Your task to perform on an android device: toggle wifi Image 0: 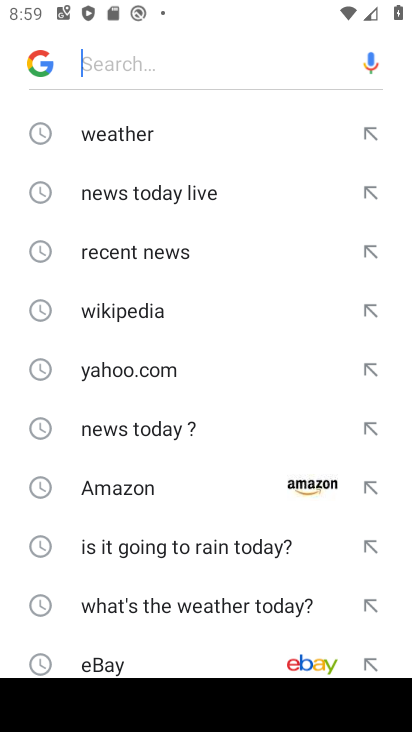
Step 0: press home button
Your task to perform on an android device: toggle wifi Image 1: 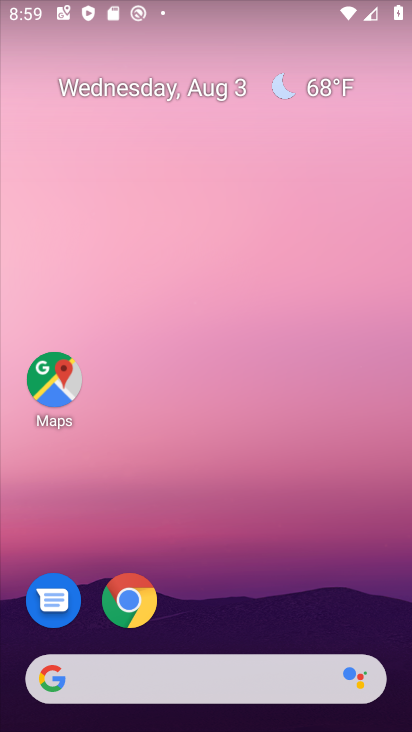
Step 1: drag from (256, 619) to (239, 147)
Your task to perform on an android device: toggle wifi Image 2: 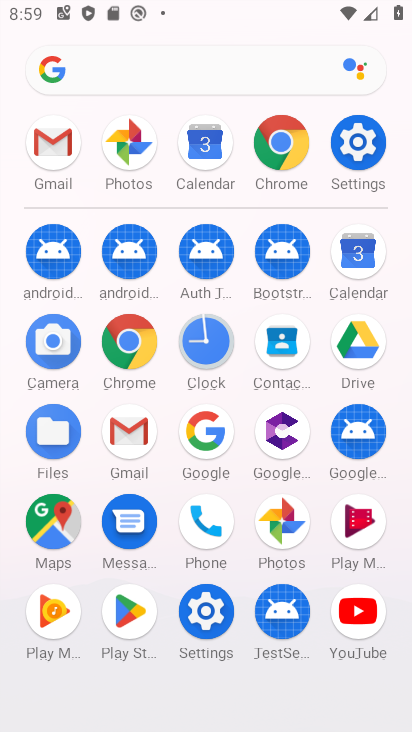
Step 2: click (348, 151)
Your task to perform on an android device: toggle wifi Image 3: 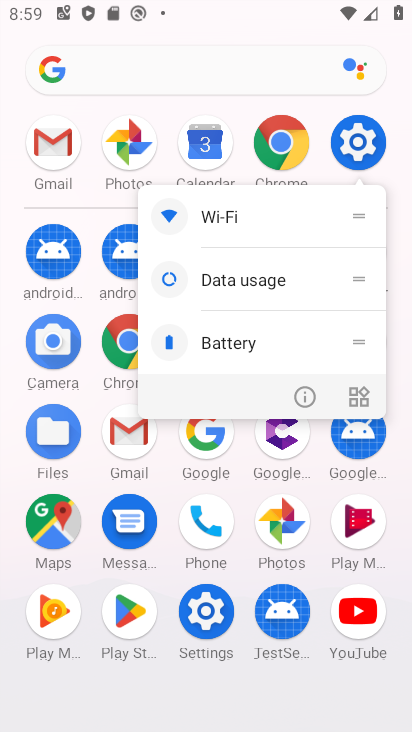
Step 3: click (348, 151)
Your task to perform on an android device: toggle wifi Image 4: 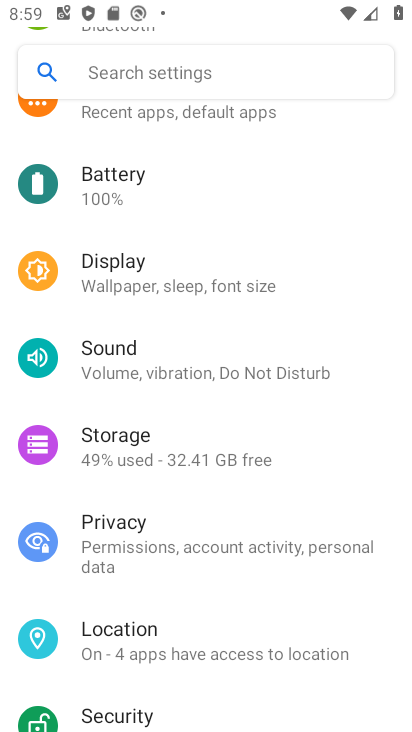
Step 4: drag from (206, 153) to (188, 593)
Your task to perform on an android device: toggle wifi Image 5: 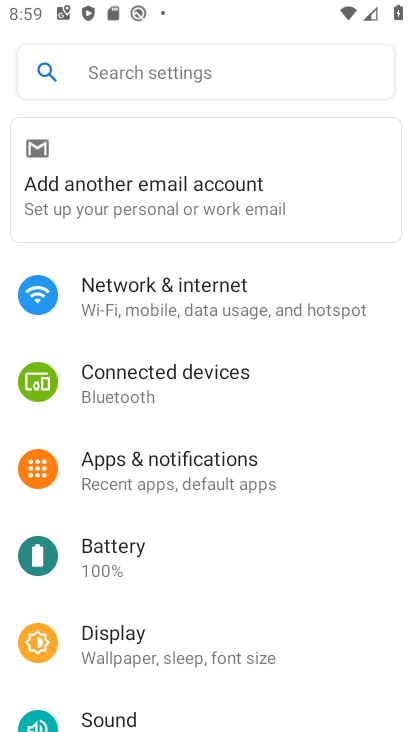
Step 5: click (192, 307)
Your task to perform on an android device: toggle wifi Image 6: 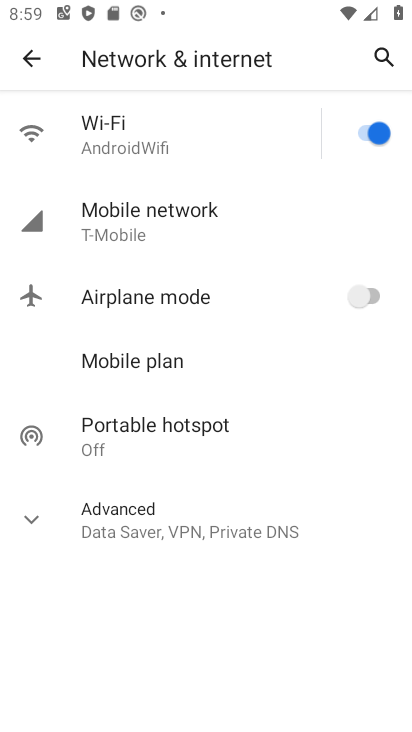
Step 6: click (340, 125)
Your task to perform on an android device: toggle wifi Image 7: 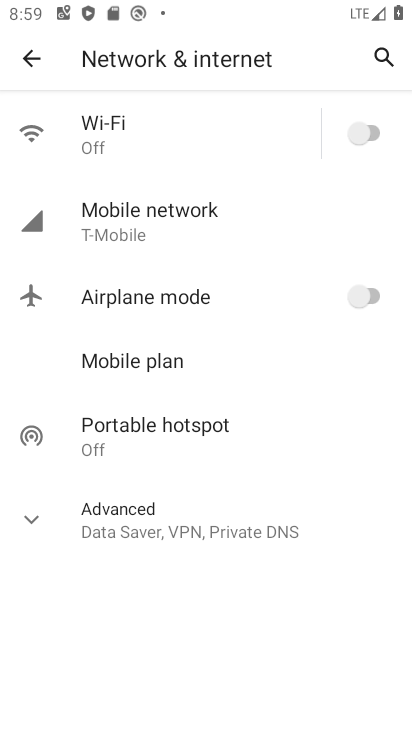
Step 7: task complete